Your task to perform on an android device: turn off javascript in the chrome app Image 0: 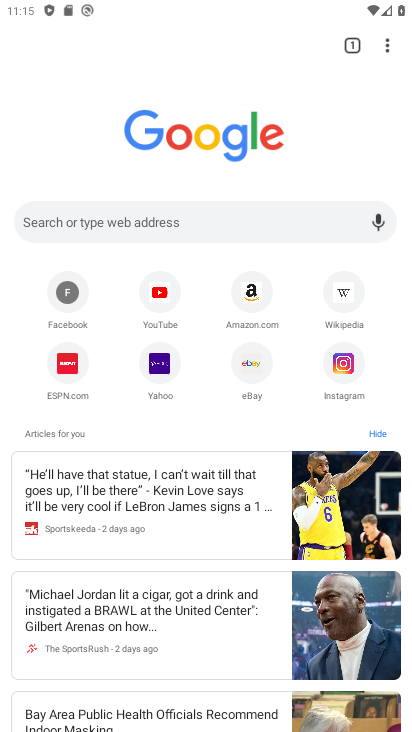
Step 0: click (133, 633)
Your task to perform on an android device: turn off javascript in the chrome app Image 1: 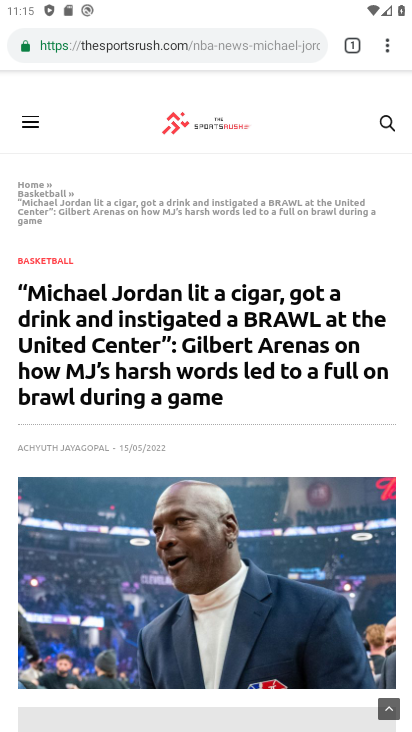
Step 1: press back button
Your task to perform on an android device: turn off javascript in the chrome app Image 2: 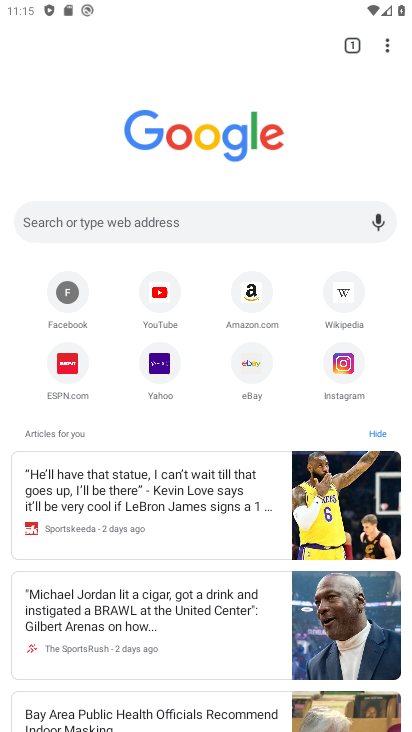
Step 2: click (386, 51)
Your task to perform on an android device: turn off javascript in the chrome app Image 3: 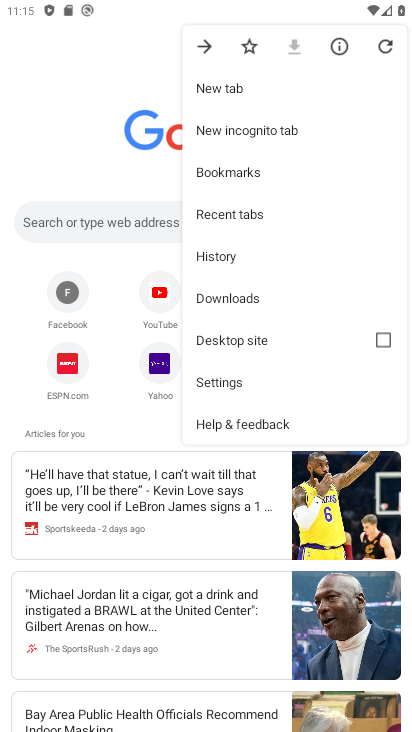
Step 3: click (227, 384)
Your task to perform on an android device: turn off javascript in the chrome app Image 4: 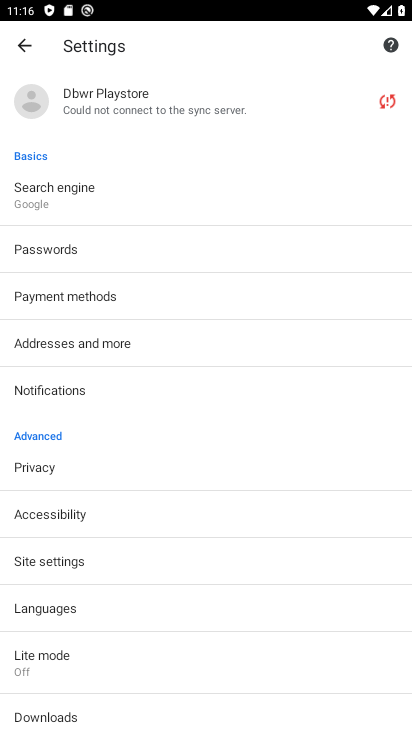
Step 4: click (49, 563)
Your task to perform on an android device: turn off javascript in the chrome app Image 5: 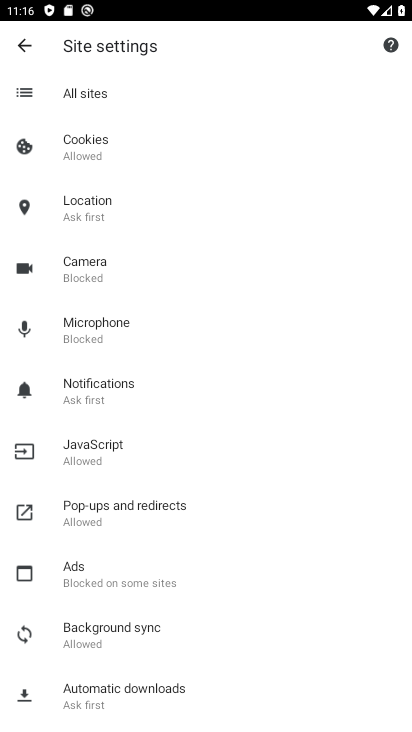
Step 5: click (119, 444)
Your task to perform on an android device: turn off javascript in the chrome app Image 6: 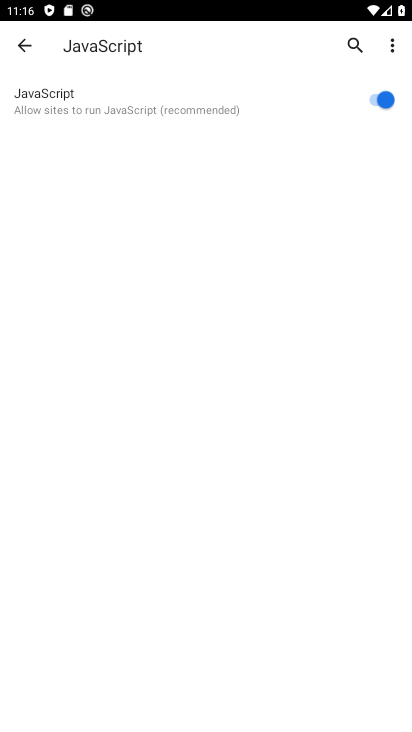
Step 6: click (374, 97)
Your task to perform on an android device: turn off javascript in the chrome app Image 7: 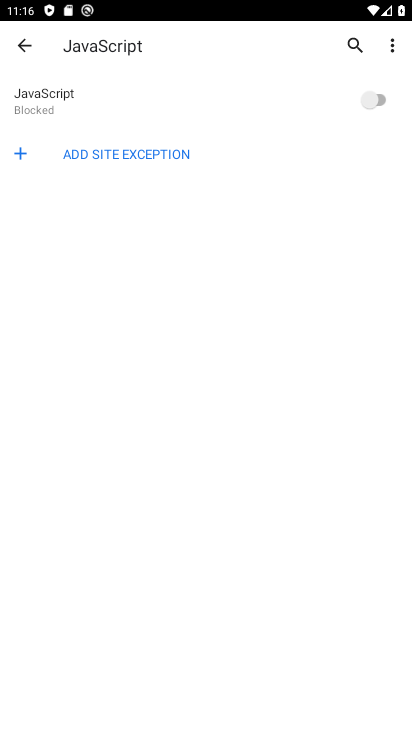
Step 7: task complete